Your task to perform on an android device: Do I have any events this weekend? Image 0: 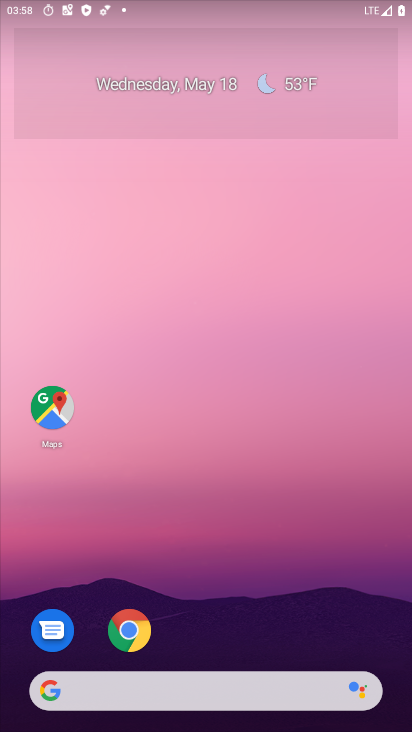
Step 0: drag from (200, 726) to (220, 249)
Your task to perform on an android device: Do I have any events this weekend? Image 1: 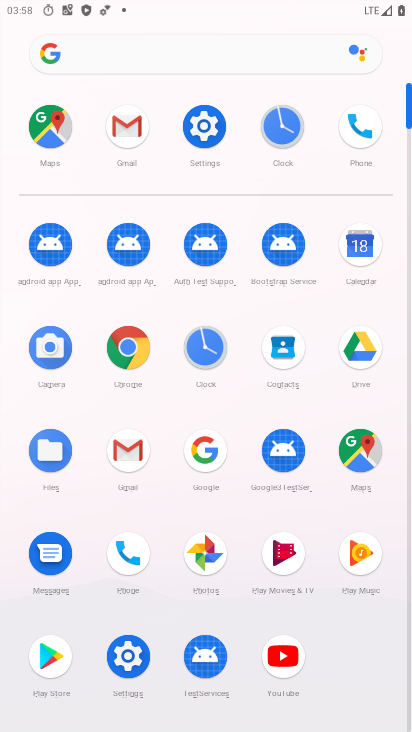
Step 1: click (366, 252)
Your task to perform on an android device: Do I have any events this weekend? Image 2: 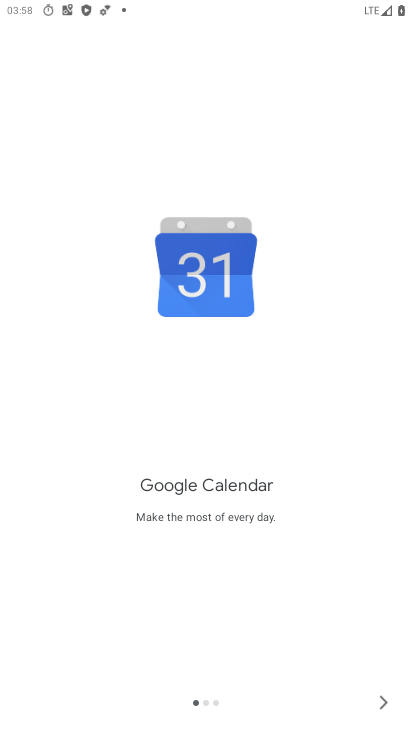
Step 2: click (384, 697)
Your task to perform on an android device: Do I have any events this weekend? Image 3: 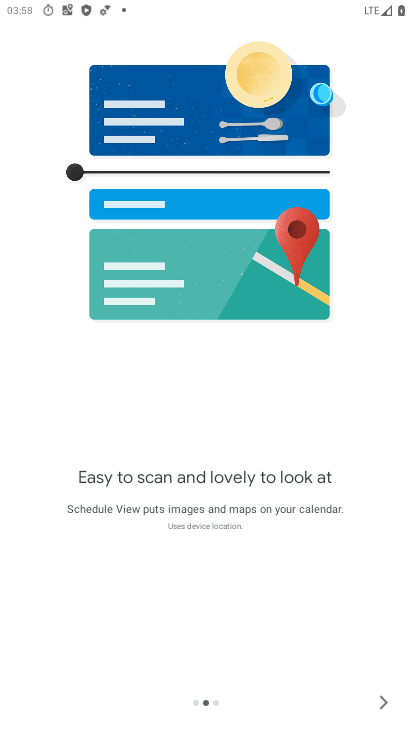
Step 3: click (384, 697)
Your task to perform on an android device: Do I have any events this weekend? Image 4: 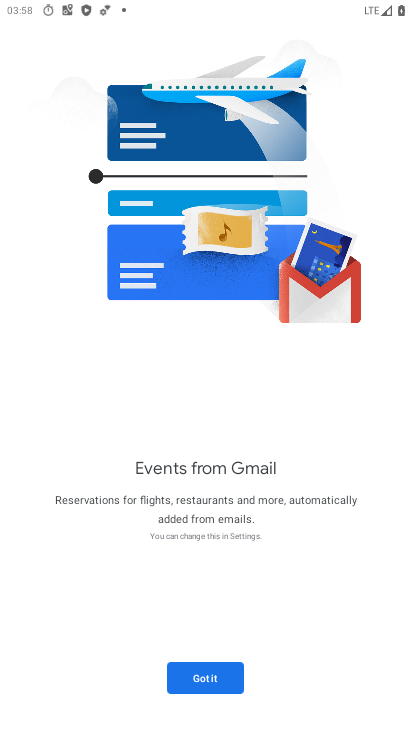
Step 4: click (200, 675)
Your task to perform on an android device: Do I have any events this weekend? Image 5: 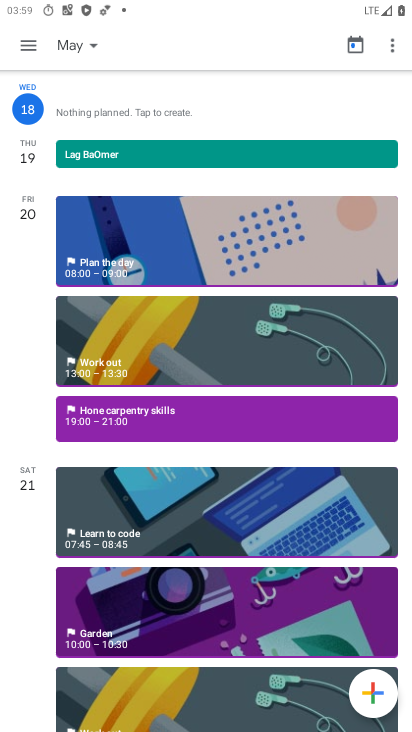
Step 5: click (28, 42)
Your task to perform on an android device: Do I have any events this weekend? Image 6: 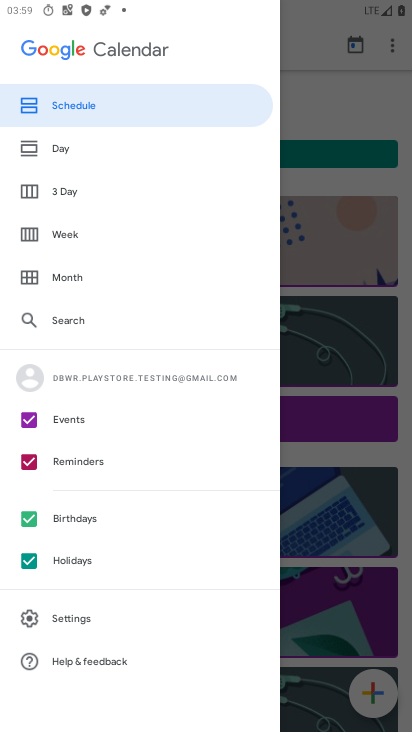
Step 6: click (28, 561)
Your task to perform on an android device: Do I have any events this weekend? Image 7: 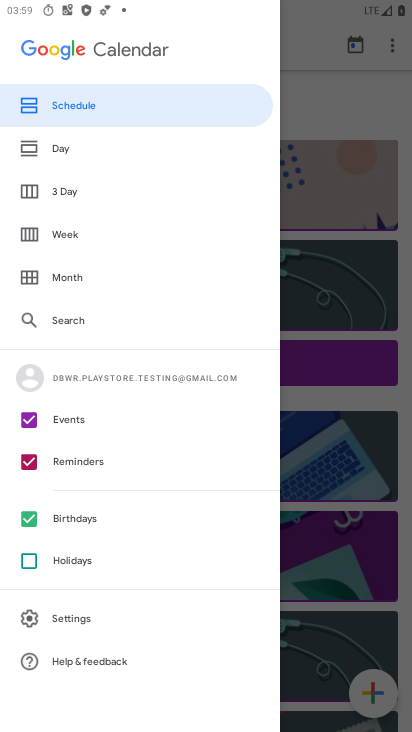
Step 7: click (29, 513)
Your task to perform on an android device: Do I have any events this weekend? Image 8: 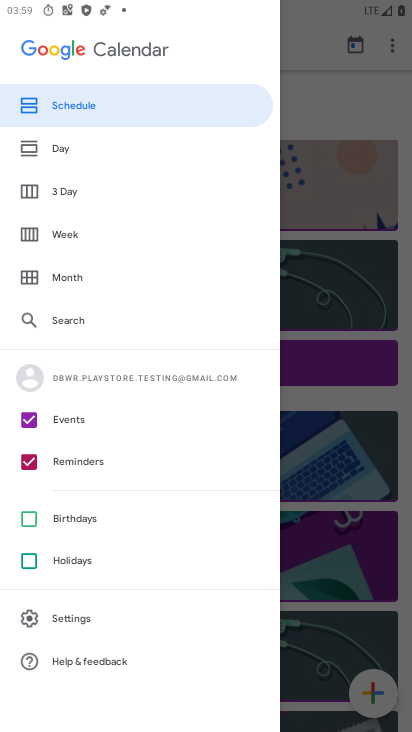
Step 8: click (29, 461)
Your task to perform on an android device: Do I have any events this weekend? Image 9: 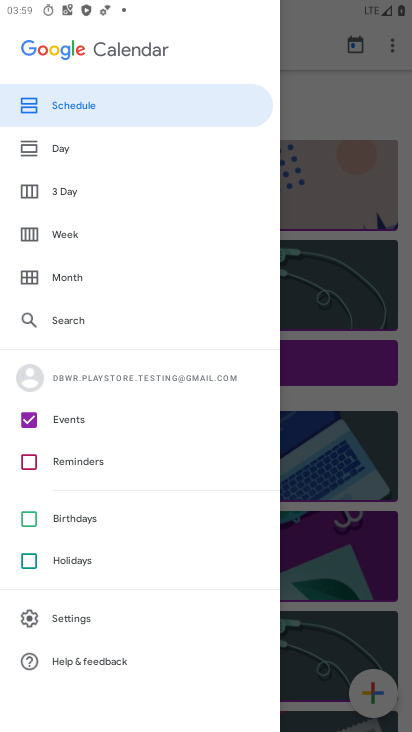
Step 9: click (76, 232)
Your task to perform on an android device: Do I have any events this weekend? Image 10: 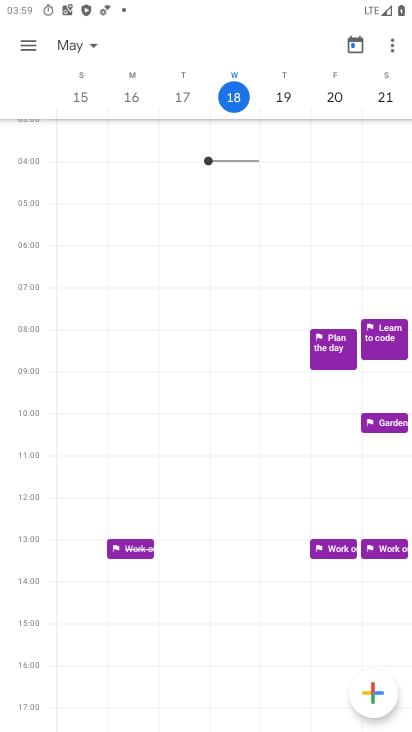
Step 10: click (384, 94)
Your task to perform on an android device: Do I have any events this weekend? Image 11: 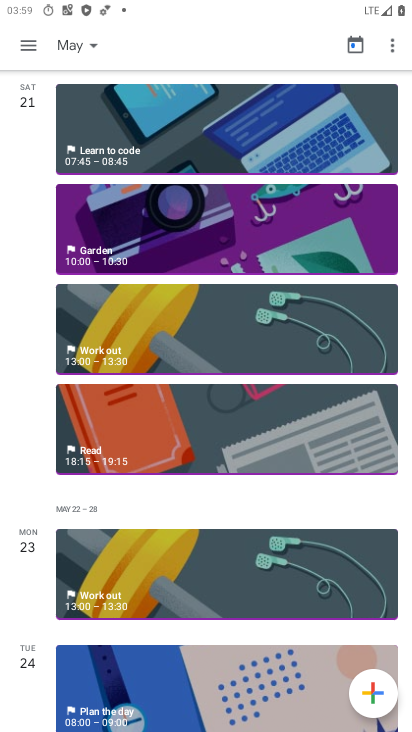
Step 11: task complete